Your task to perform on an android device: Go to sound settings Image 0: 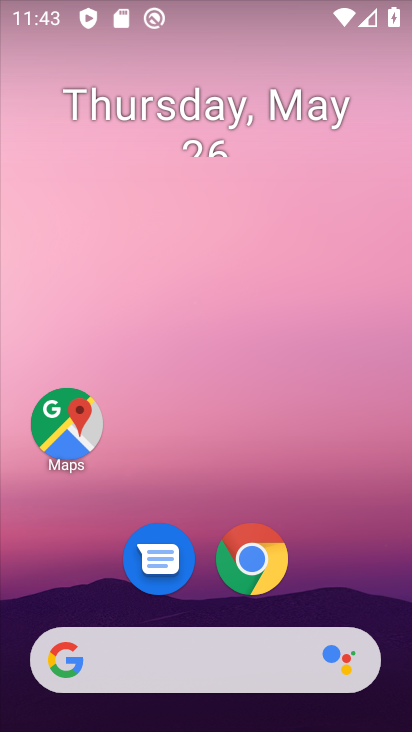
Step 0: drag from (349, 555) to (317, 9)
Your task to perform on an android device: Go to sound settings Image 1: 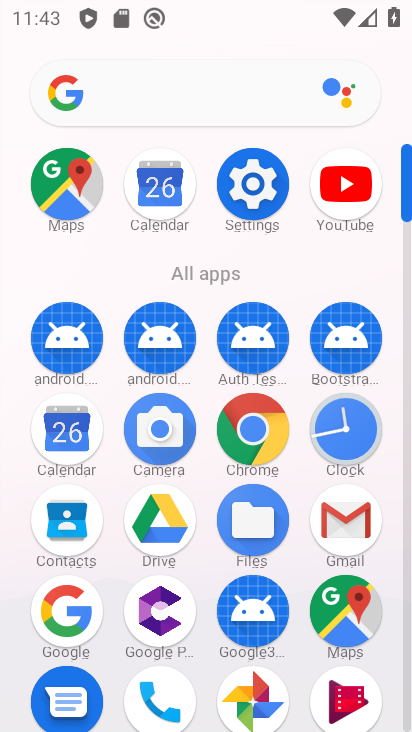
Step 1: click (252, 191)
Your task to perform on an android device: Go to sound settings Image 2: 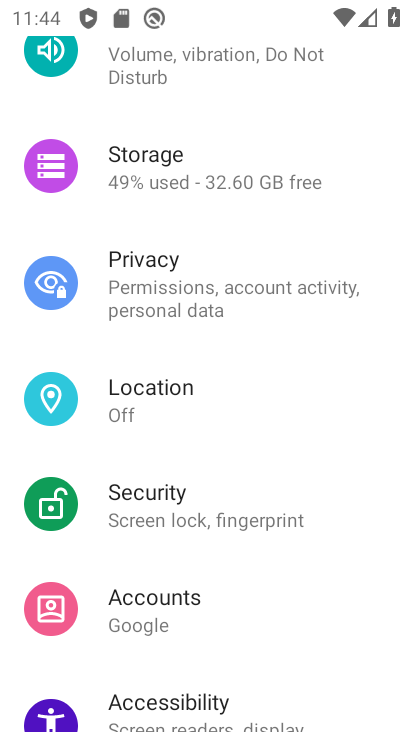
Step 2: drag from (260, 284) to (214, 638)
Your task to perform on an android device: Go to sound settings Image 3: 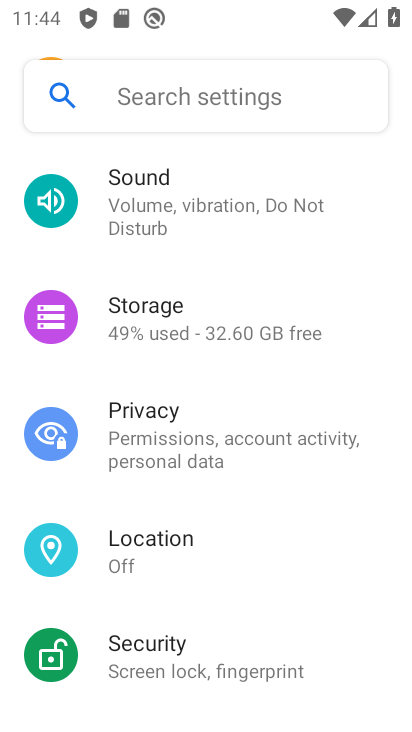
Step 3: click (260, 208)
Your task to perform on an android device: Go to sound settings Image 4: 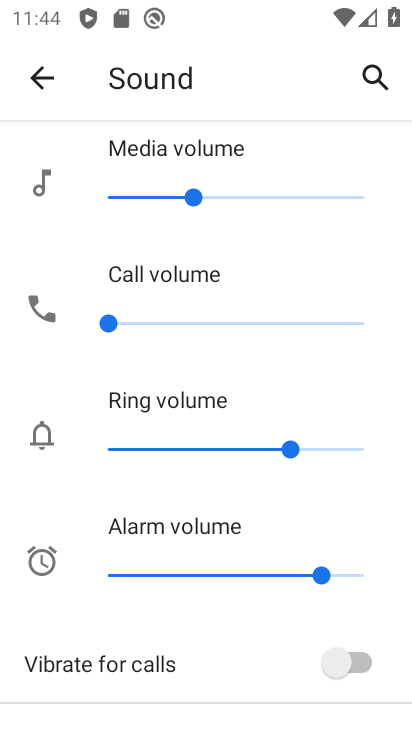
Step 4: task complete